Your task to perform on an android device: see sites visited before in the chrome app Image 0: 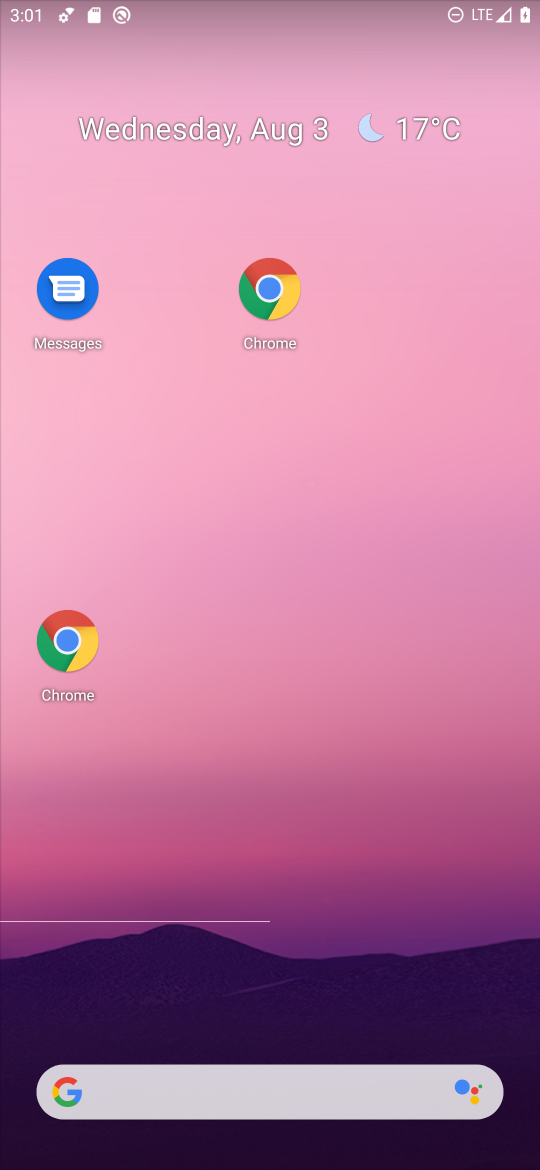
Step 0: click (290, 332)
Your task to perform on an android device: see sites visited before in the chrome app Image 1: 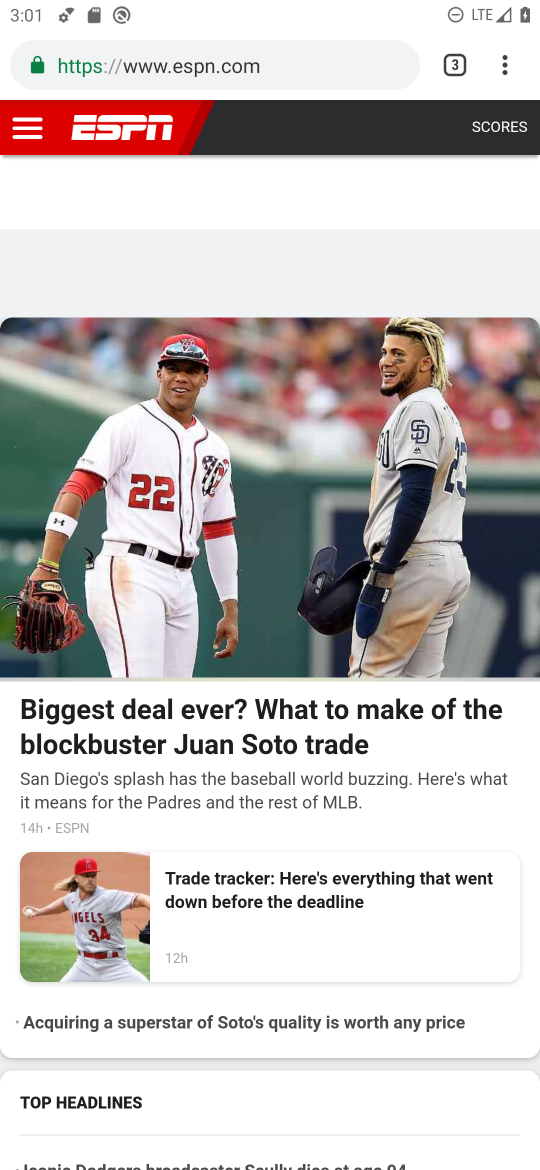
Step 1: click (516, 77)
Your task to perform on an android device: see sites visited before in the chrome app Image 2: 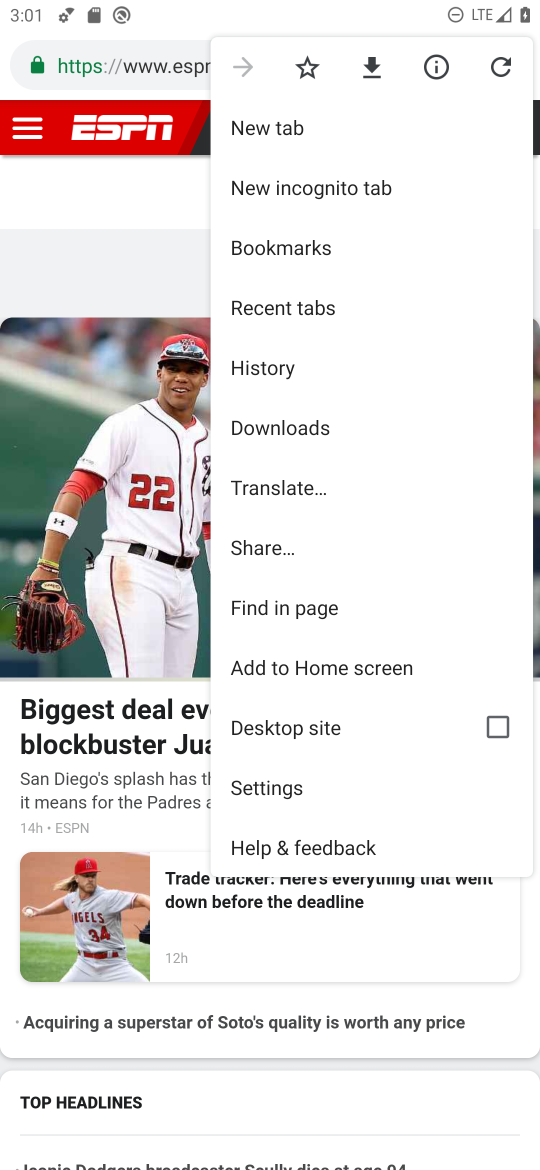
Step 2: click (361, 299)
Your task to perform on an android device: see sites visited before in the chrome app Image 3: 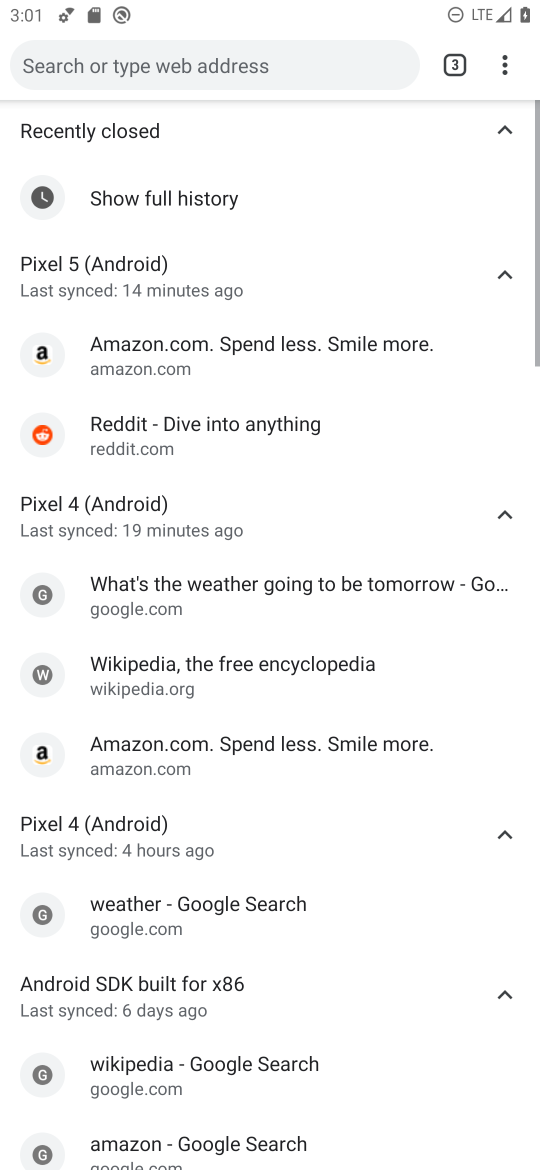
Step 3: task complete